Your task to perform on an android device: change keyboard looks Image 0: 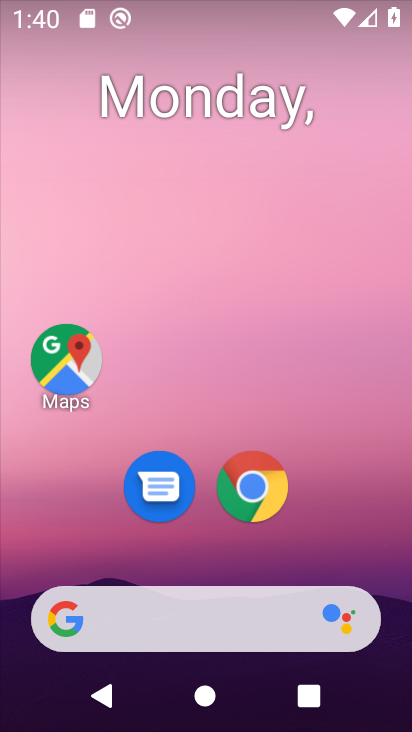
Step 0: drag from (231, 551) to (201, 26)
Your task to perform on an android device: change keyboard looks Image 1: 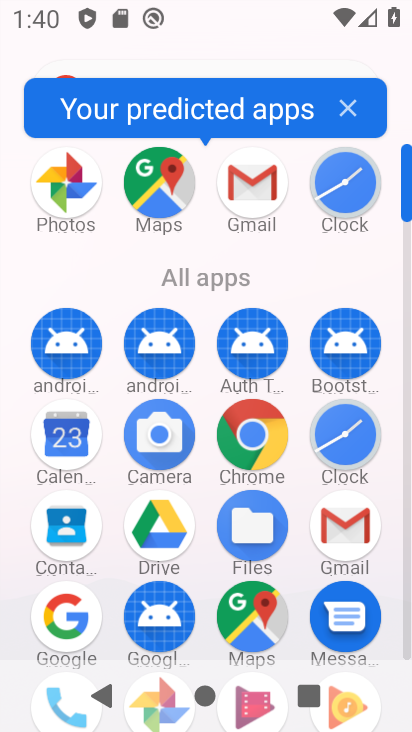
Step 1: drag from (294, 494) to (323, 139)
Your task to perform on an android device: change keyboard looks Image 2: 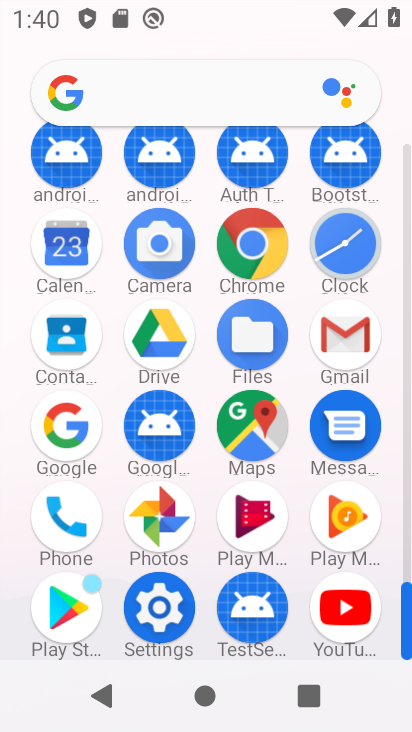
Step 2: click (170, 597)
Your task to perform on an android device: change keyboard looks Image 3: 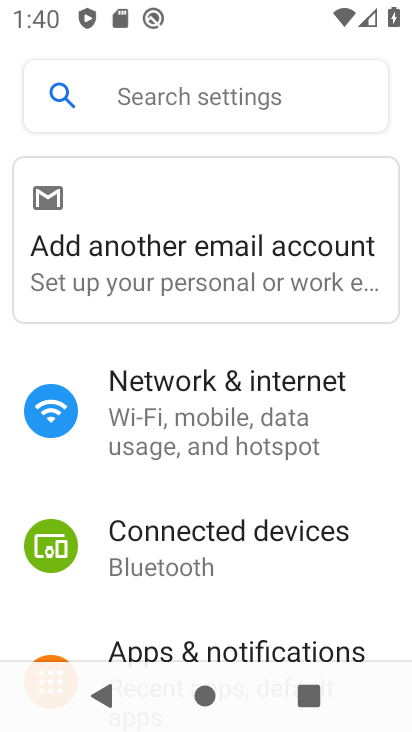
Step 3: drag from (220, 566) to (232, 99)
Your task to perform on an android device: change keyboard looks Image 4: 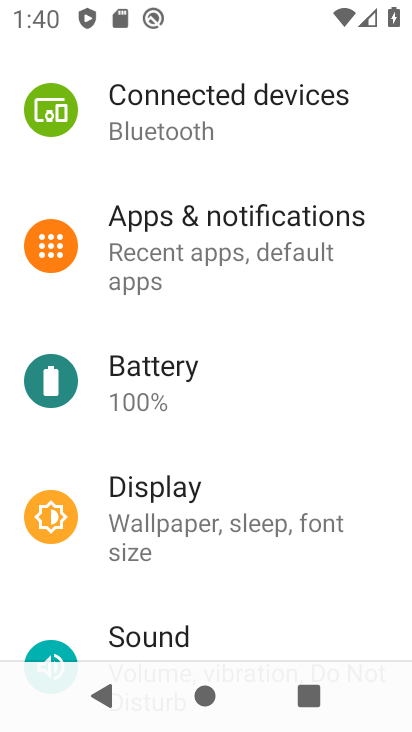
Step 4: drag from (195, 539) to (192, 82)
Your task to perform on an android device: change keyboard looks Image 5: 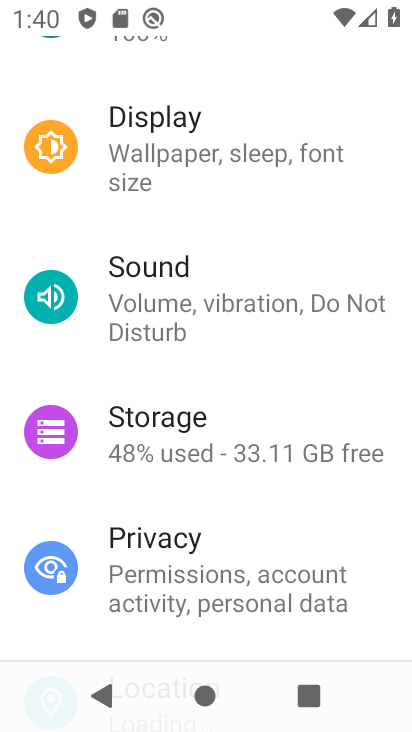
Step 5: drag from (127, 554) to (161, 44)
Your task to perform on an android device: change keyboard looks Image 6: 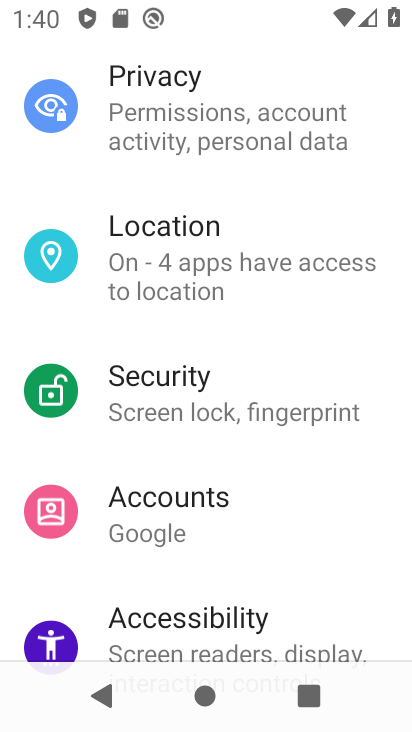
Step 6: drag from (182, 569) to (224, 91)
Your task to perform on an android device: change keyboard looks Image 7: 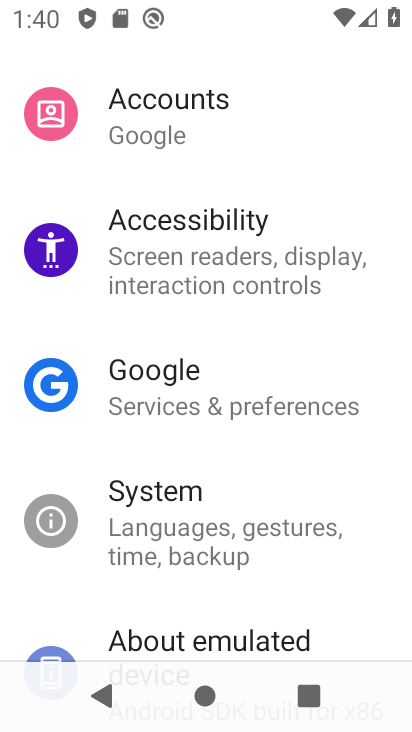
Step 7: click (158, 501)
Your task to perform on an android device: change keyboard looks Image 8: 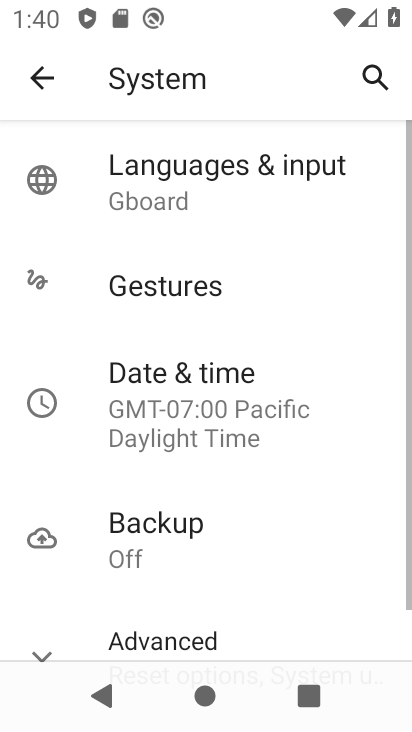
Step 8: click (206, 178)
Your task to perform on an android device: change keyboard looks Image 9: 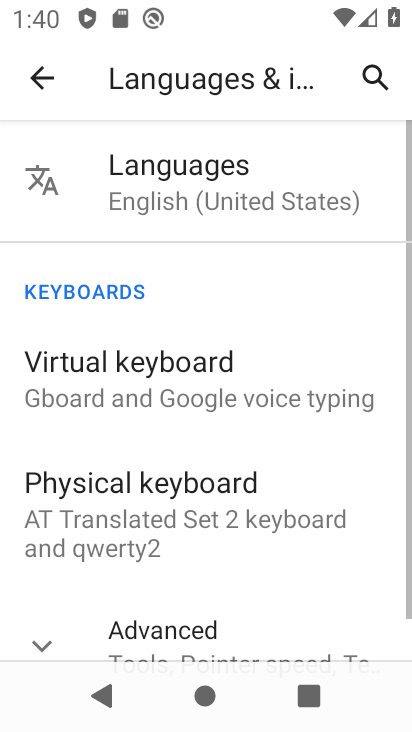
Step 9: click (113, 377)
Your task to perform on an android device: change keyboard looks Image 10: 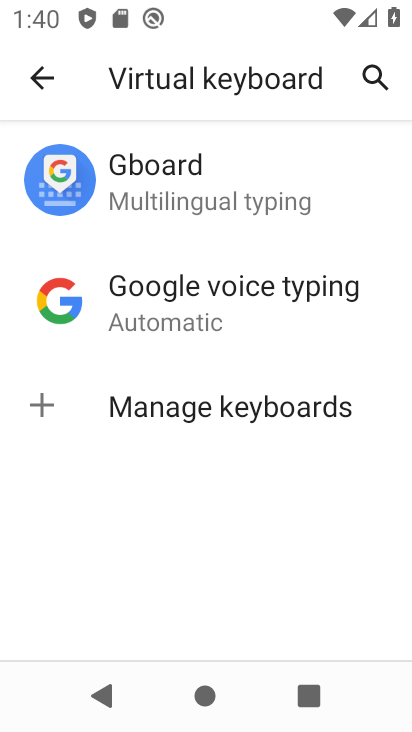
Step 10: click (180, 157)
Your task to perform on an android device: change keyboard looks Image 11: 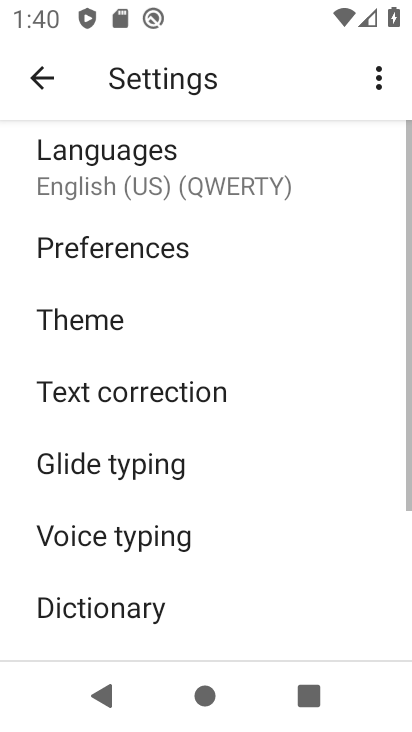
Step 11: click (109, 322)
Your task to perform on an android device: change keyboard looks Image 12: 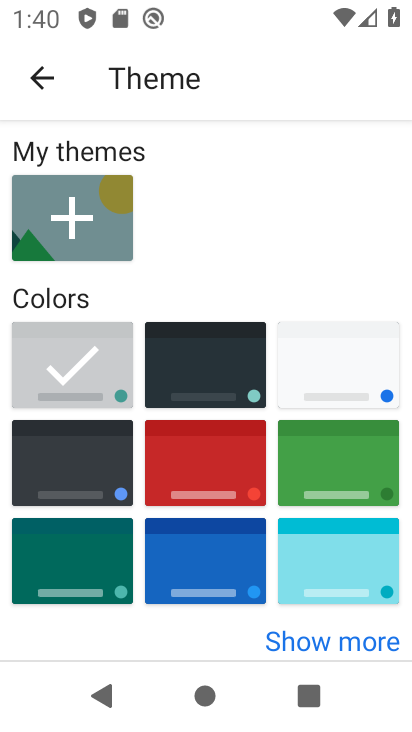
Step 12: click (185, 358)
Your task to perform on an android device: change keyboard looks Image 13: 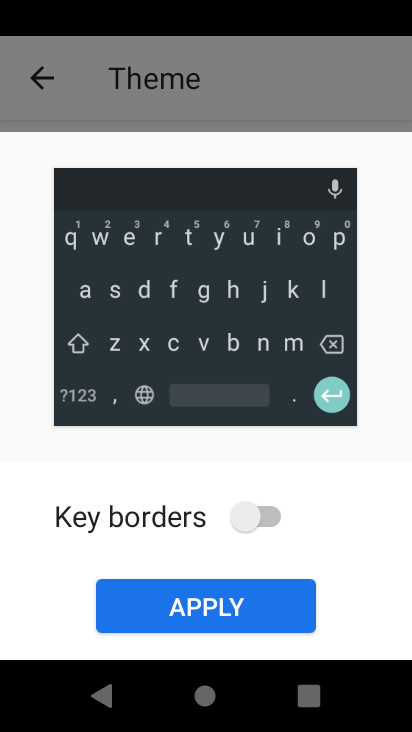
Step 13: click (258, 596)
Your task to perform on an android device: change keyboard looks Image 14: 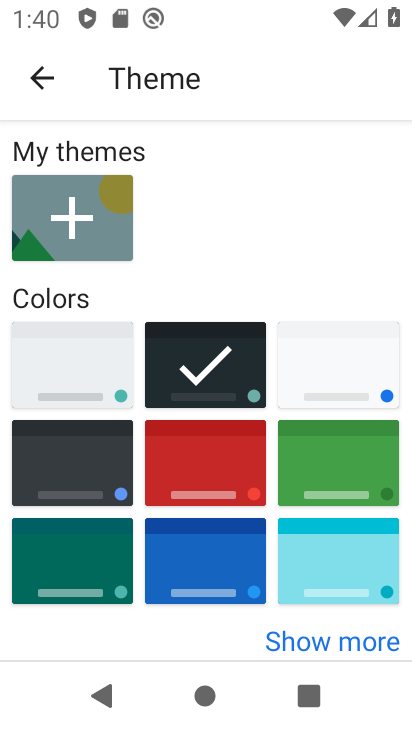
Step 14: task complete